Your task to perform on an android device: manage bookmarks in the chrome app Image 0: 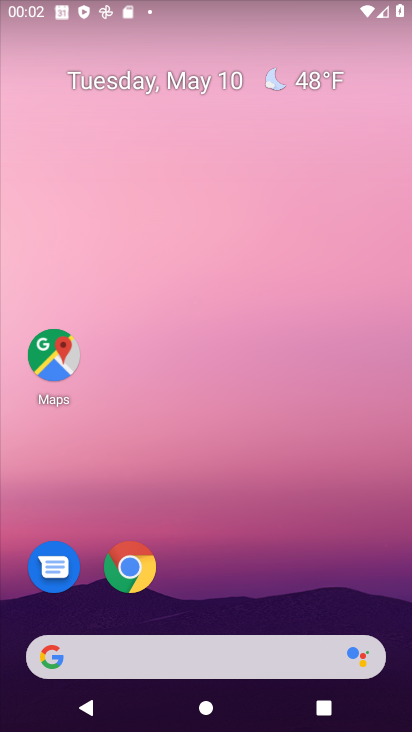
Step 0: click (128, 570)
Your task to perform on an android device: manage bookmarks in the chrome app Image 1: 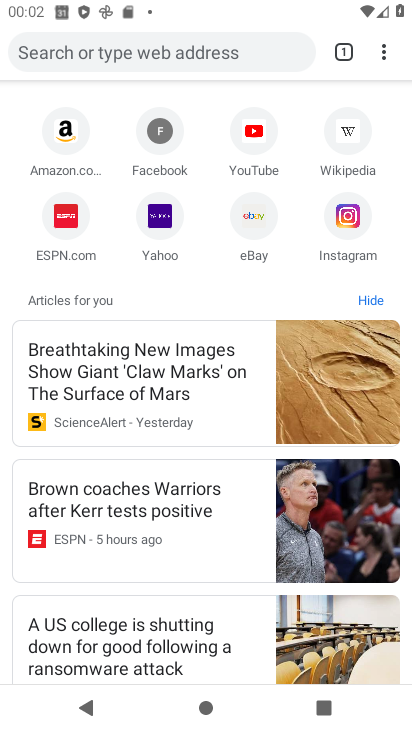
Step 1: click (380, 47)
Your task to perform on an android device: manage bookmarks in the chrome app Image 2: 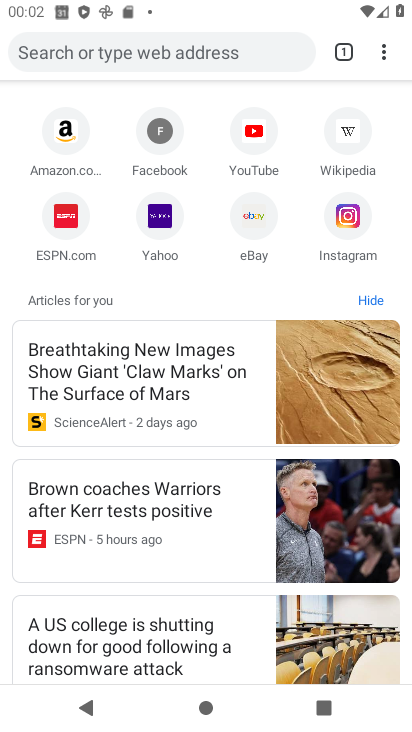
Step 2: click (380, 49)
Your task to perform on an android device: manage bookmarks in the chrome app Image 3: 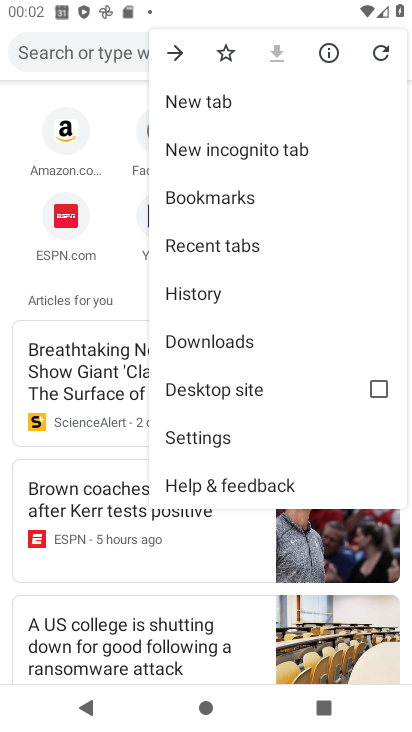
Step 3: click (234, 197)
Your task to perform on an android device: manage bookmarks in the chrome app Image 4: 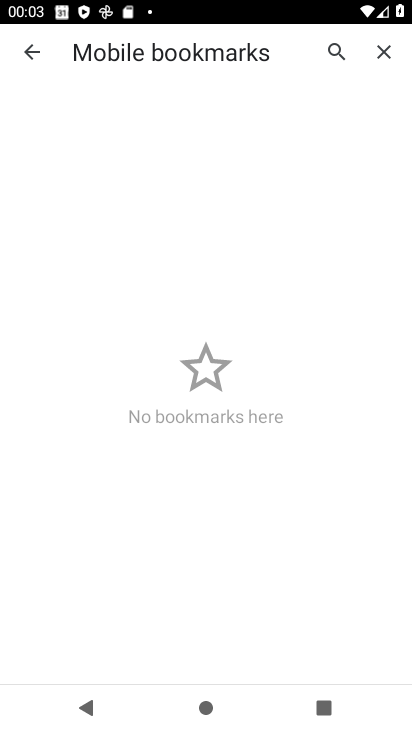
Step 4: task complete